Your task to perform on an android device: set an alarm Image 0: 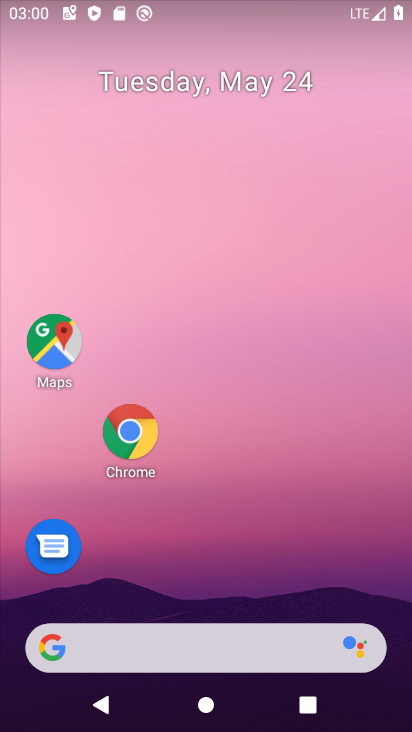
Step 0: drag from (192, 478) to (275, 167)
Your task to perform on an android device: set an alarm Image 1: 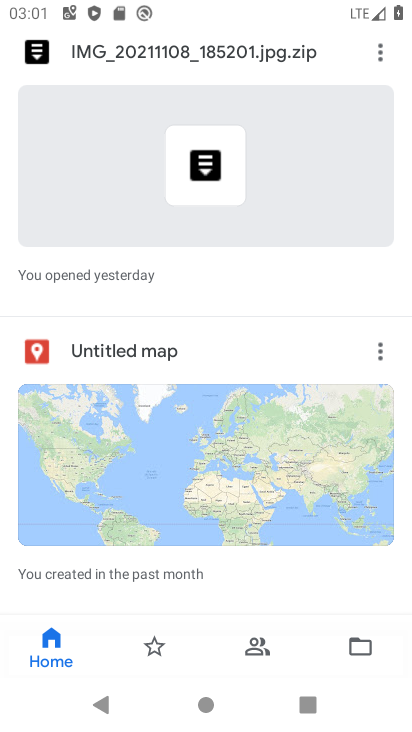
Step 1: press home button
Your task to perform on an android device: set an alarm Image 2: 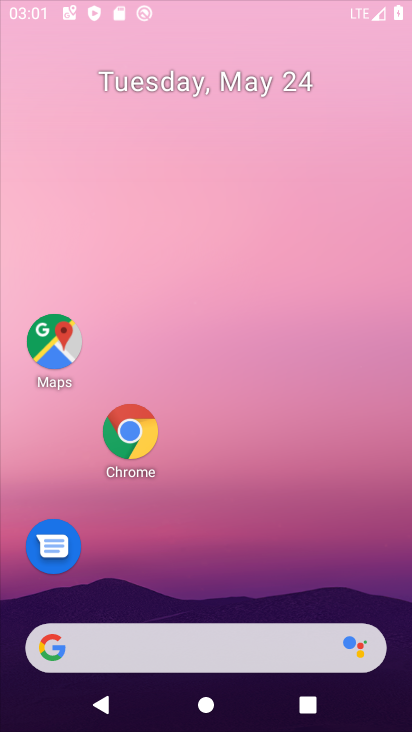
Step 2: drag from (221, 599) to (246, 126)
Your task to perform on an android device: set an alarm Image 3: 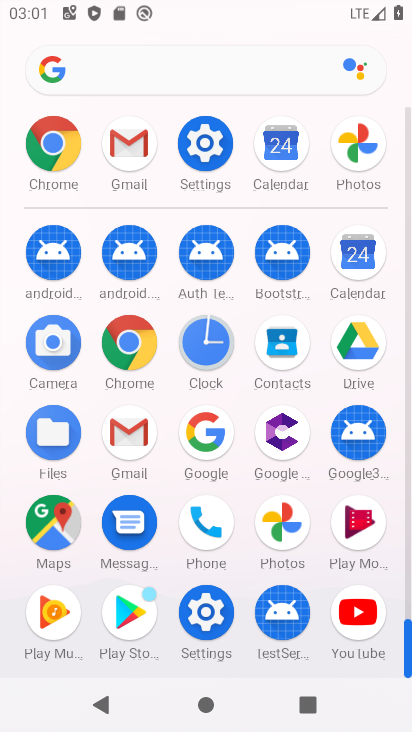
Step 3: click (206, 336)
Your task to perform on an android device: set an alarm Image 4: 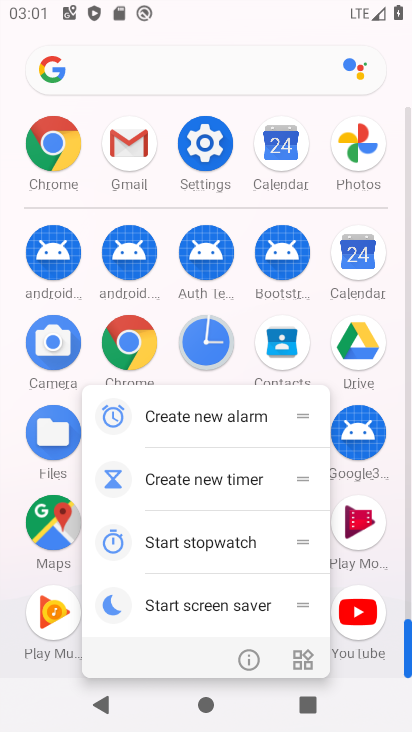
Step 4: click (239, 657)
Your task to perform on an android device: set an alarm Image 5: 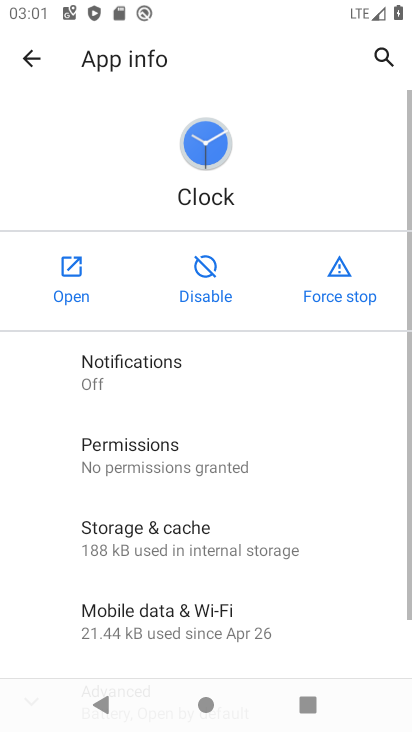
Step 5: click (53, 274)
Your task to perform on an android device: set an alarm Image 6: 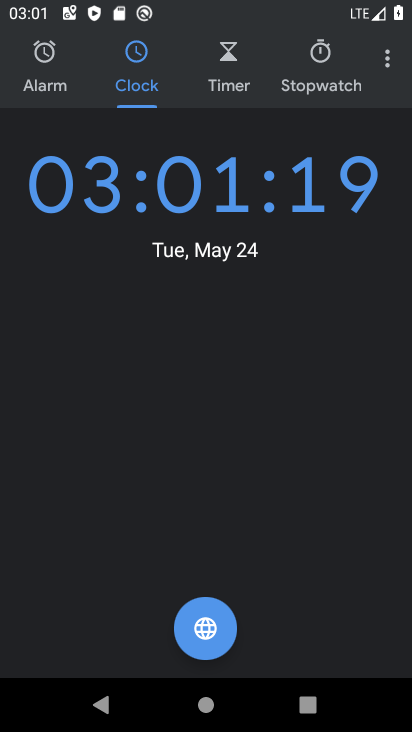
Step 6: click (389, 69)
Your task to perform on an android device: set an alarm Image 7: 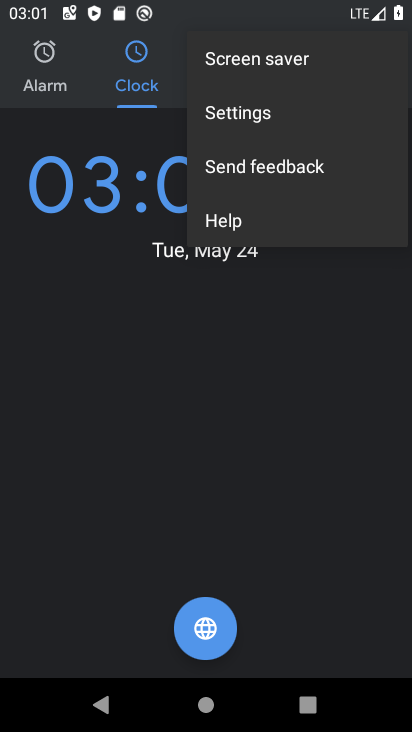
Step 7: click (39, 57)
Your task to perform on an android device: set an alarm Image 8: 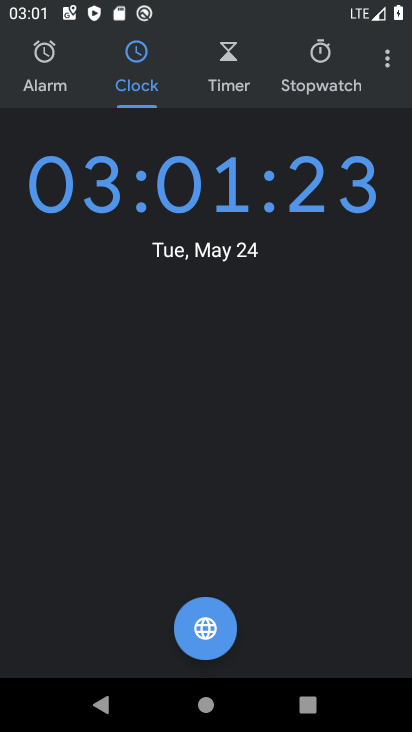
Step 8: click (46, 60)
Your task to perform on an android device: set an alarm Image 9: 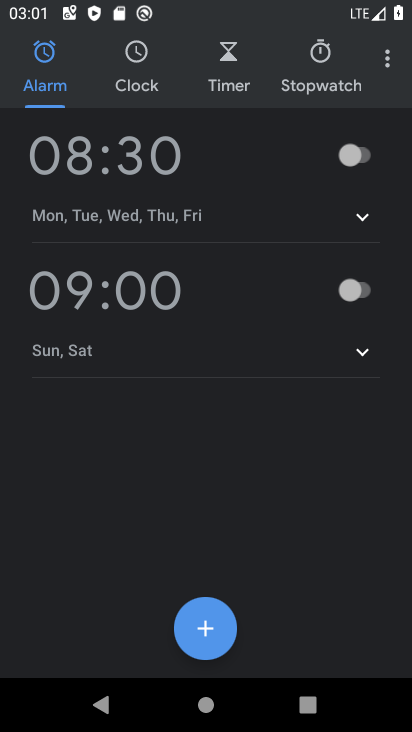
Step 9: task complete